Your task to perform on an android device: clear history in the chrome app Image 0: 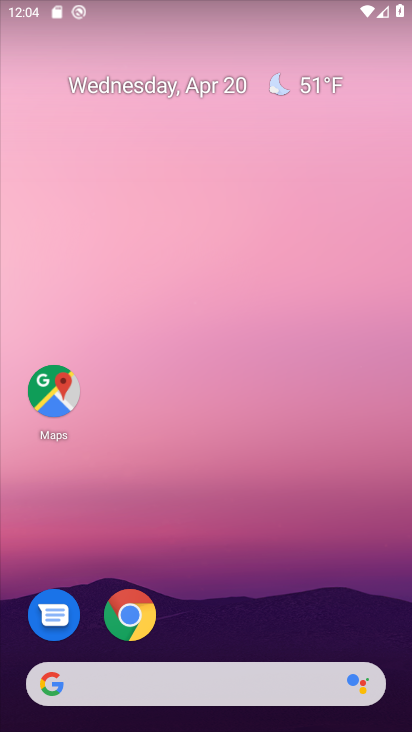
Step 0: click (126, 620)
Your task to perform on an android device: clear history in the chrome app Image 1: 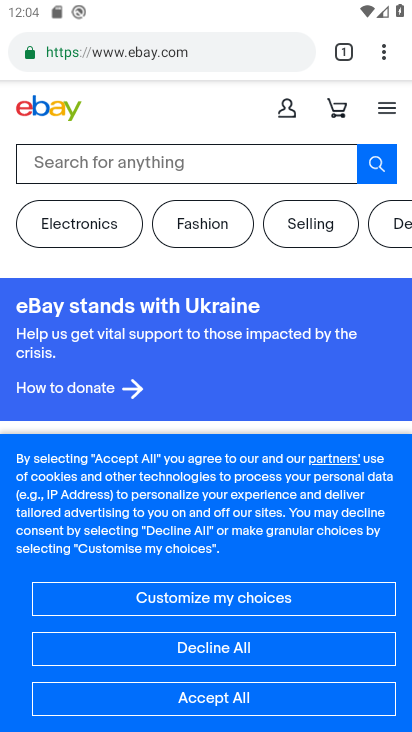
Step 1: drag from (383, 57) to (189, 295)
Your task to perform on an android device: clear history in the chrome app Image 2: 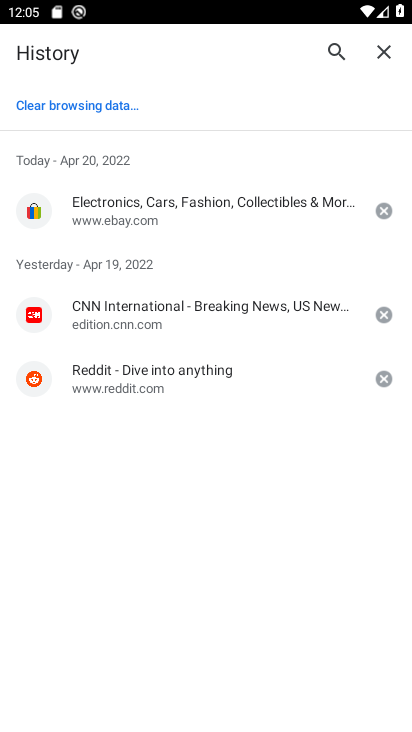
Step 2: click (76, 107)
Your task to perform on an android device: clear history in the chrome app Image 3: 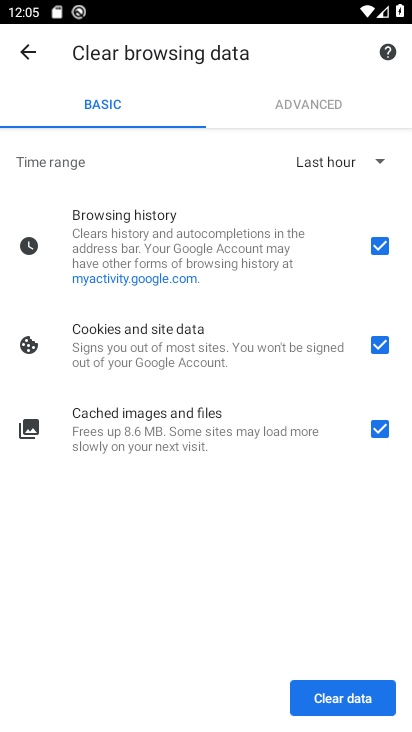
Step 3: click (328, 698)
Your task to perform on an android device: clear history in the chrome app Image 4: 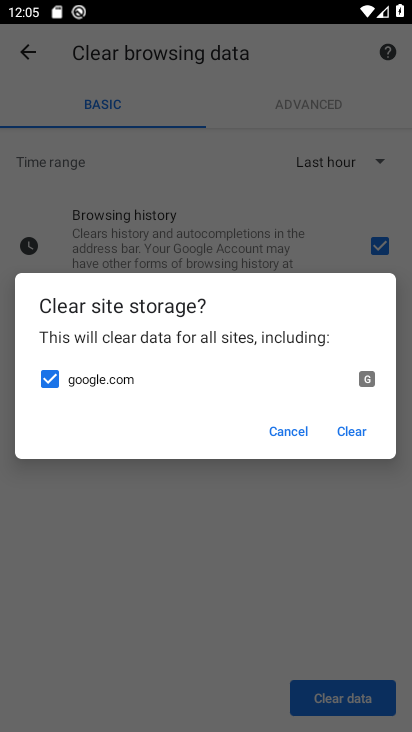
Step 4: click (352, 432)
Your task to perform on an android device: clear history in the chrome app Image 5: 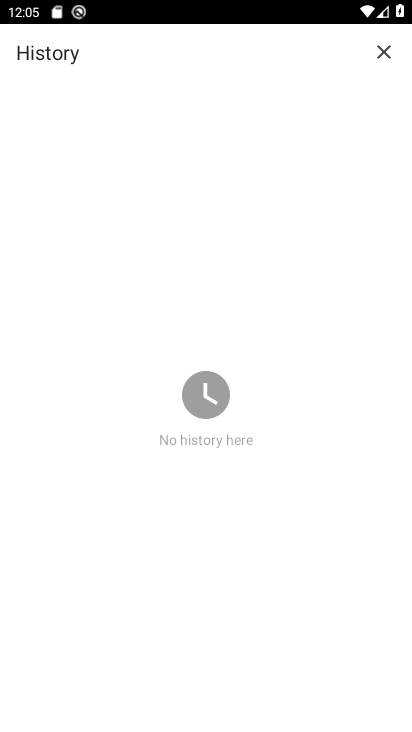
Step 5: task complete